Your task to perform on an android device: set the timer Image 0: 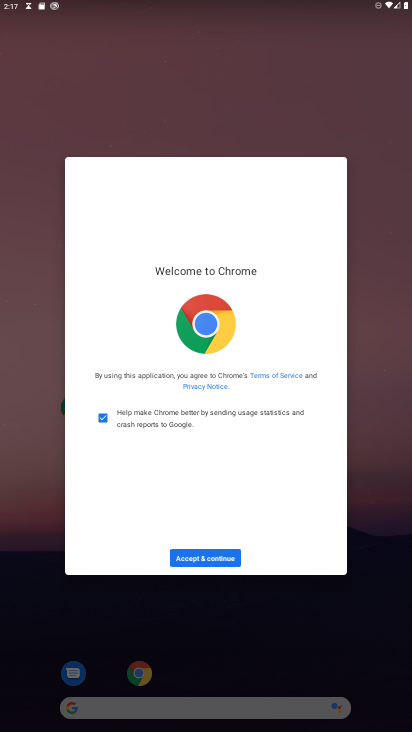
Step 0: press home button
Your task to perform on an android device: set the timer Image 1: 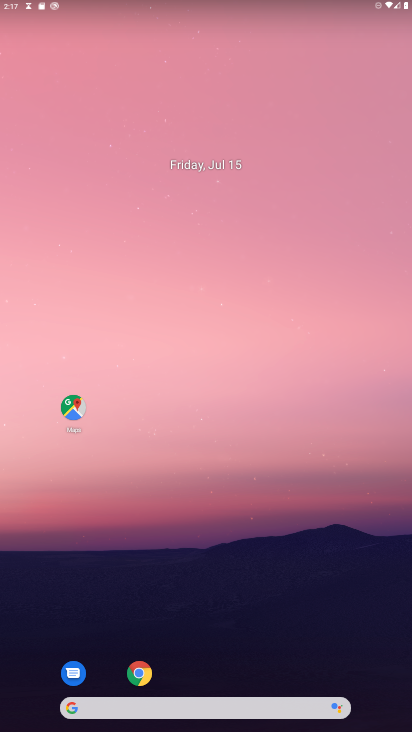
Step 1: drag from (205, 695) to (188, 314)
Your task to perform on an android device: set the timer Image 2: 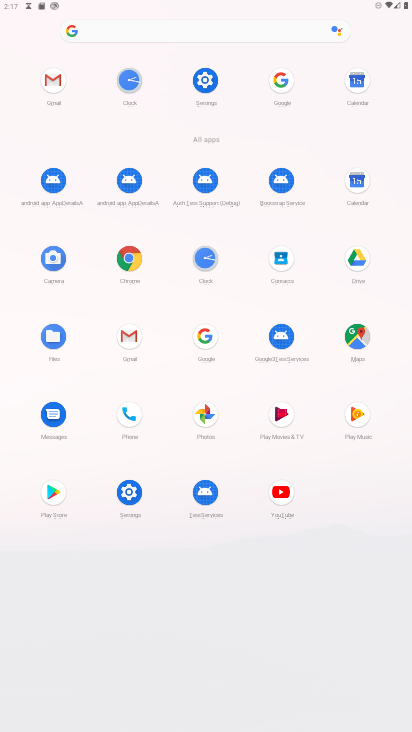
Step 2: click (202, 252)
Your task to perform on an android device: set the timer Image 3: 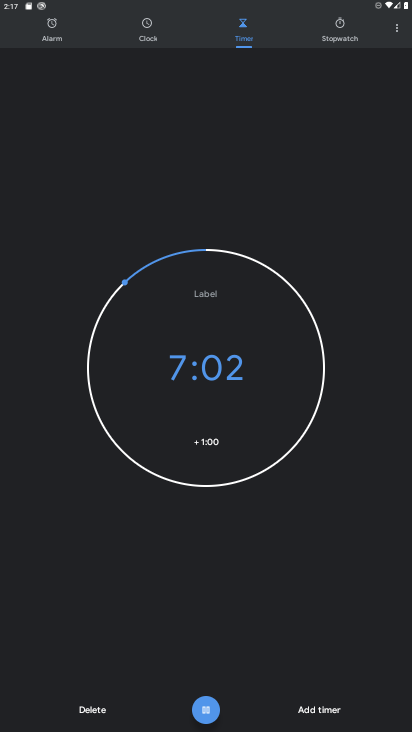
Step 3: task complete